Your task to perform on an android device: Go to Wikipedia Image 0: 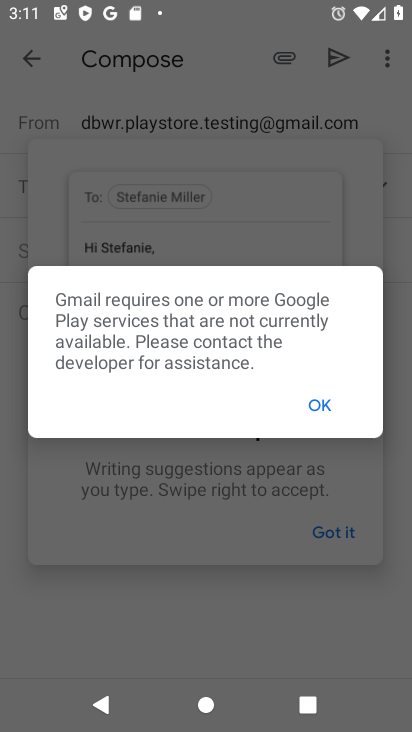
Step 0: press home button
Your task to perform on an android device: Go to Wikipedia Image 1: 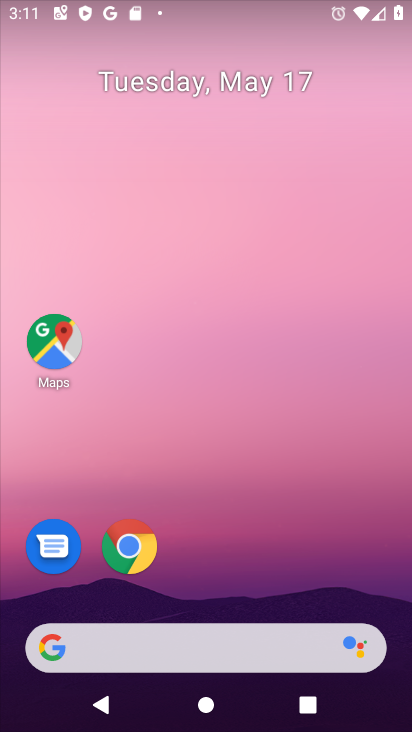
Step 1: click (140, 539)
Your task to perform on an android device: Go to Wikipedia Image 2: 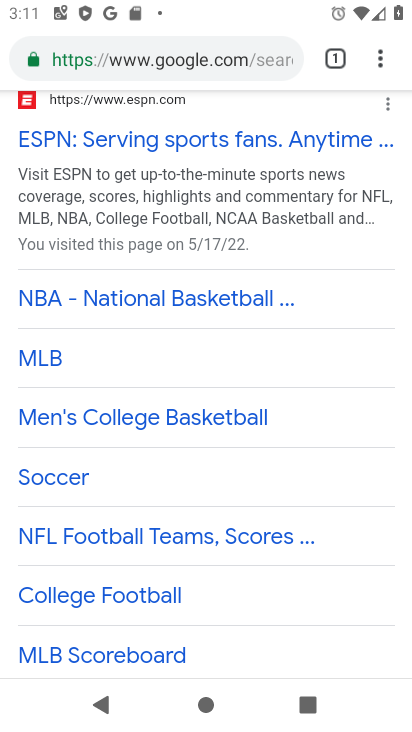
Step 2: click (287, 60)
Your task to perform on an android device: Go to Wikipedia Image 3: 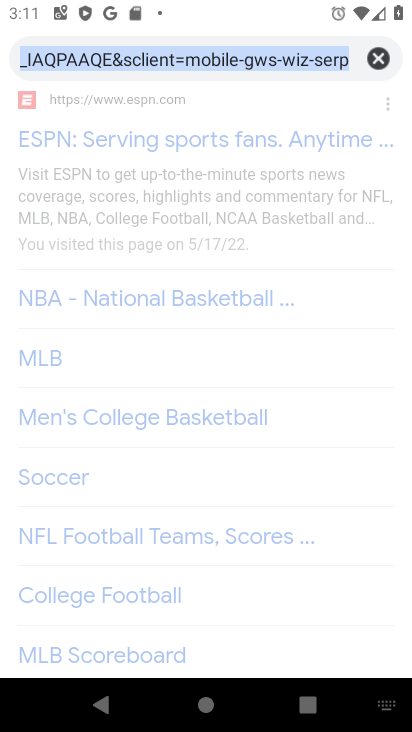
Step 3: click (384, 60)
Your task to perform on an android device: Go to Wikipedia Image 4: 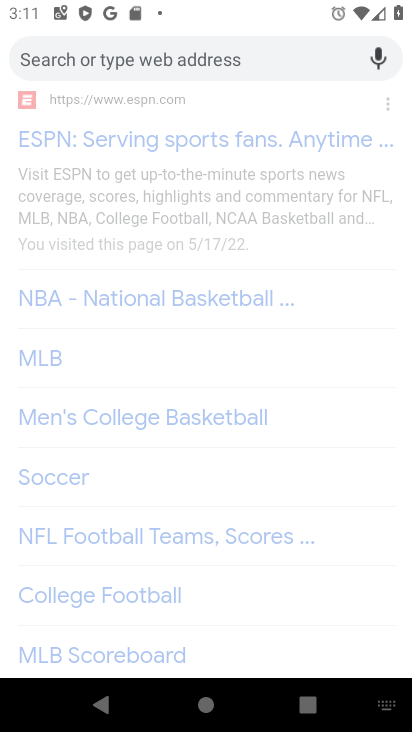
Step 4: type " Wikipedia"
Your task to perform on an android device: Go to Wikipedia Image 5: 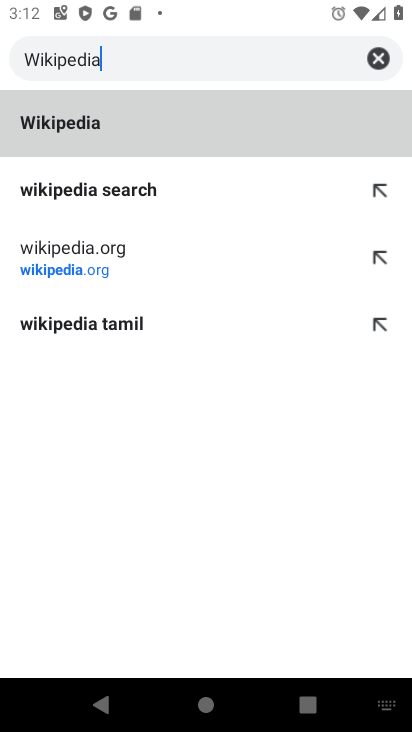
Step 5: click (51, 136)
Your task to perform on an android device: Go to Wikipedia Image 6: 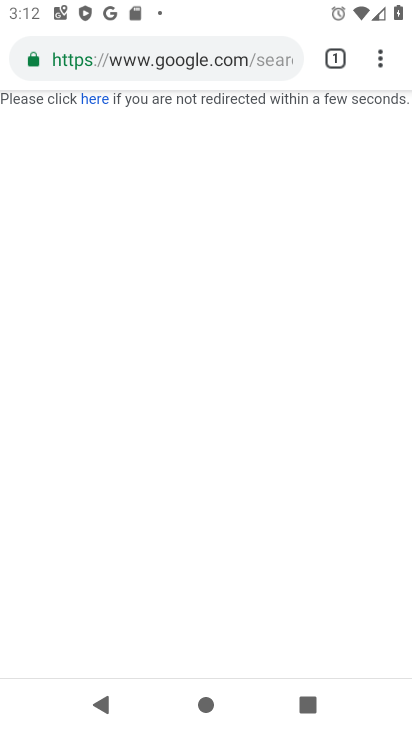
Step 6: task complete